Your task to perform on an android device: Open the stopwatch Image 0: 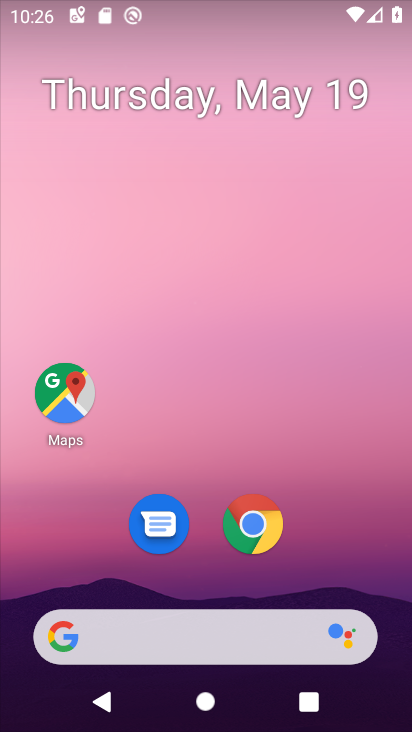
Step 0: drag from (311, 547) to (353, 62)
Your task to perform on an android device: Open the stopwatch Image 1: 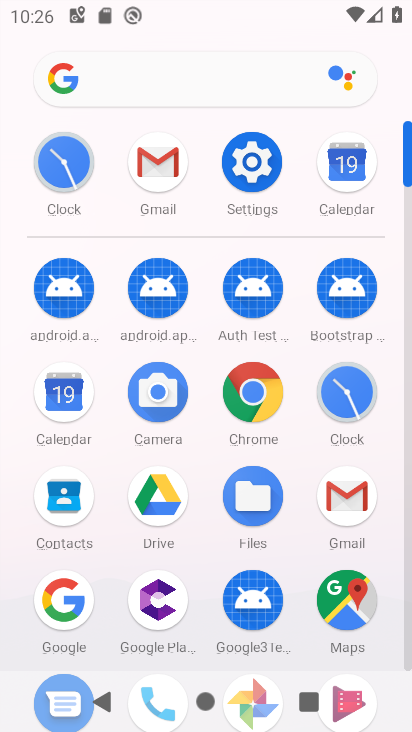
Step 1: click (80, 160)
Your task to perform on an android device: Open the stopwatch Image 2: 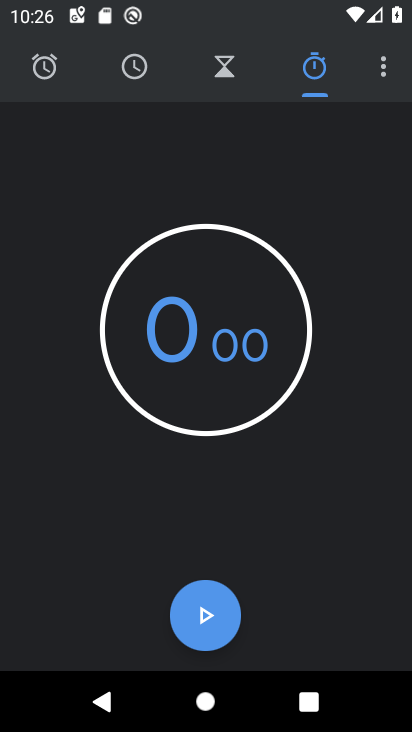
Step 2: click (202, 600)
Your task to perform on an android device: Open the stopwatch Image 3: 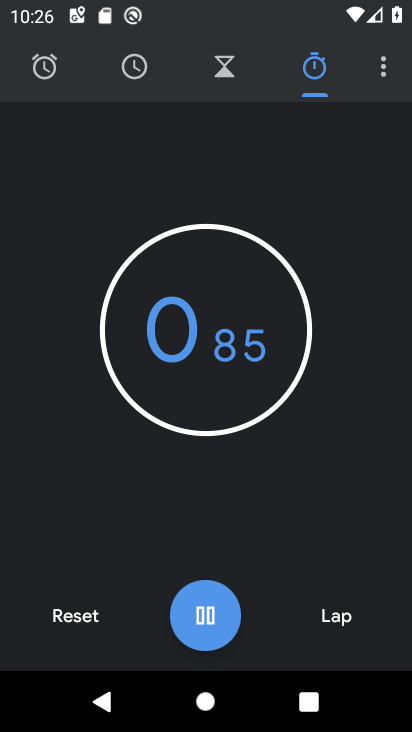
Step 3: click (202, 600)
Your task to perform on an android device: Open the stopwatch Image 4: 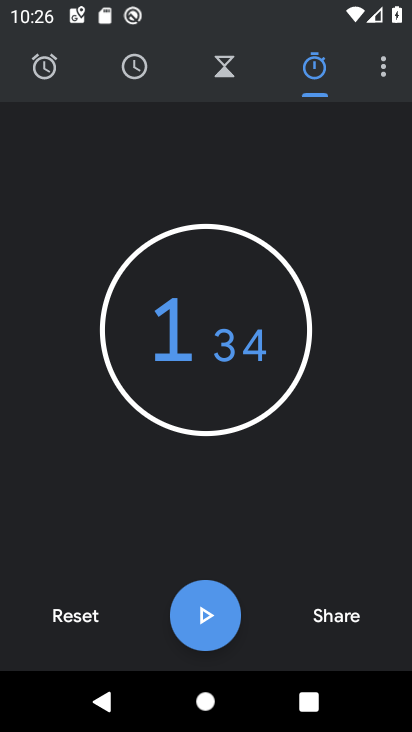
Step 4: task complete